Your task to perform on an android device: show emergency info Image 0: 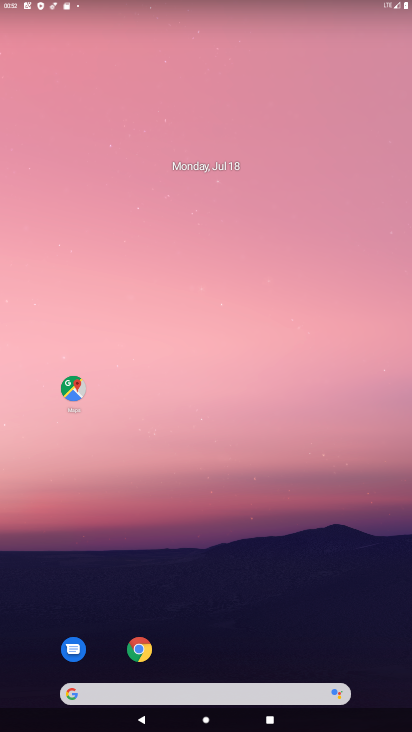
Step 0: drag from (186, 597) to (197, 15)
Your task to perform on an android device: show emergency info Image 1: 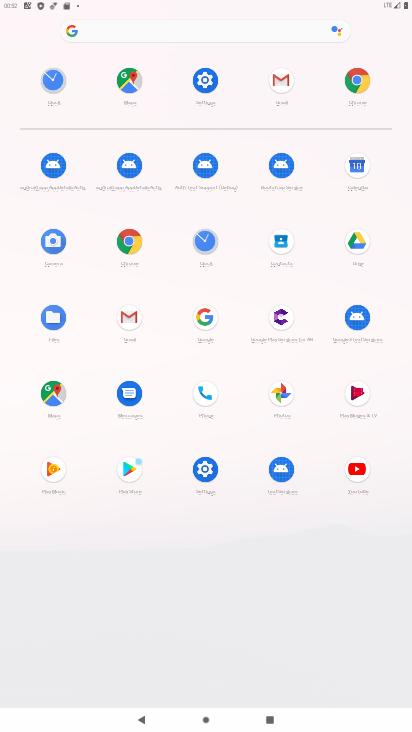
Step 1: click (206, 81)
Your task to perform on an android device: show emergency info Image 2: 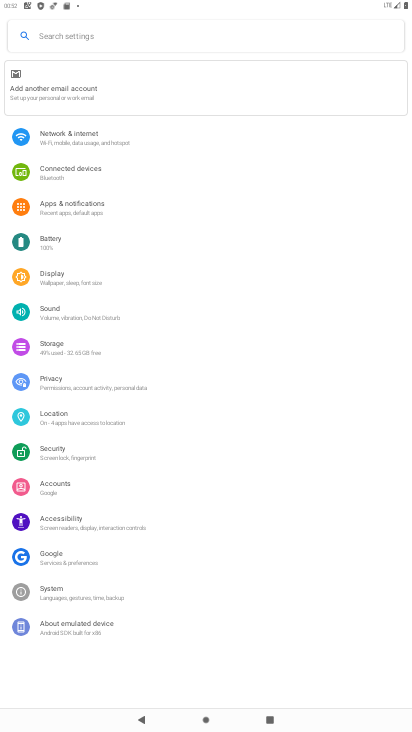
Step 2: click (60, 625)
Your task to perform on an android device: show emergency info Image 3: 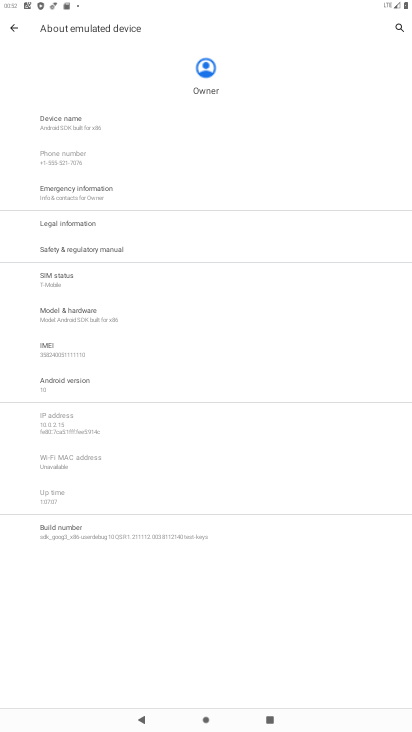
Step 3: click (96, 189)
Your task to perform on an android device: show emergency info Image 4: 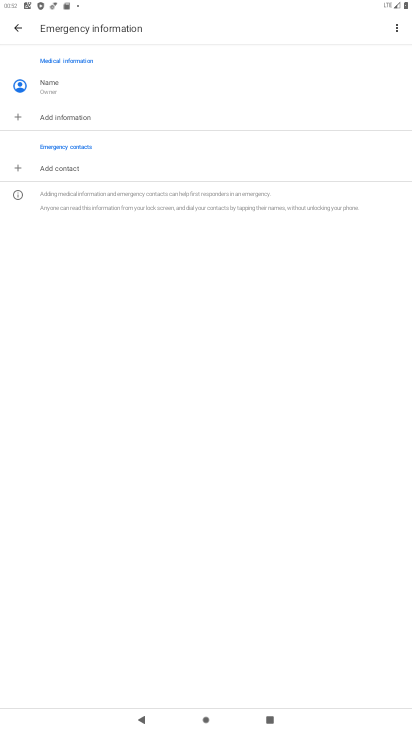
Step 4: task complete